Your task to perform on an android device: Do I have any events tomorrow? Image 0: 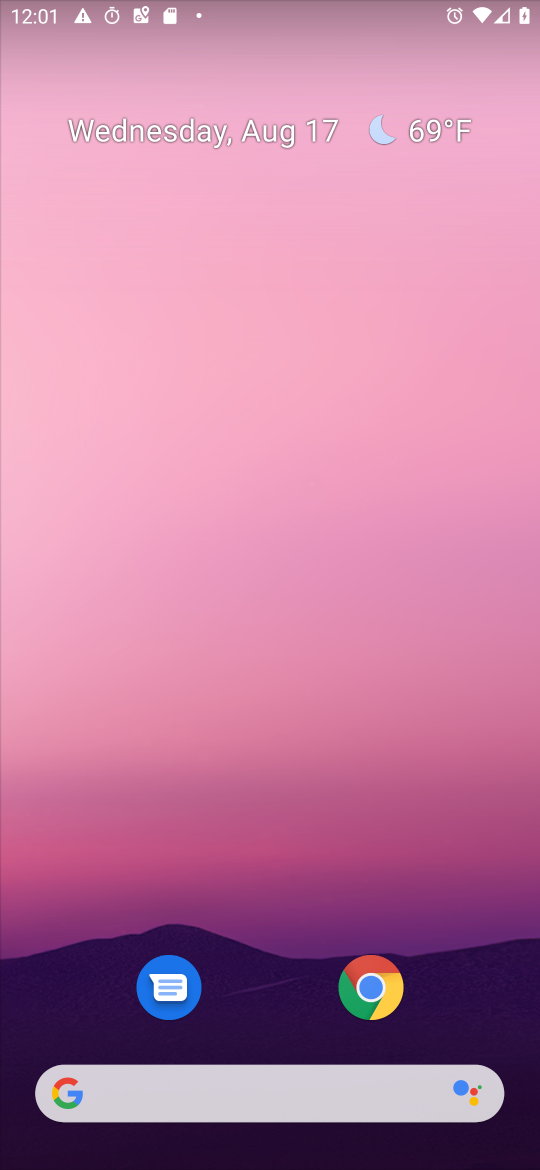
Step 0: click (143, 1081)
Your task to perform on an android device: Do I have any events tomorrow? Image 1: 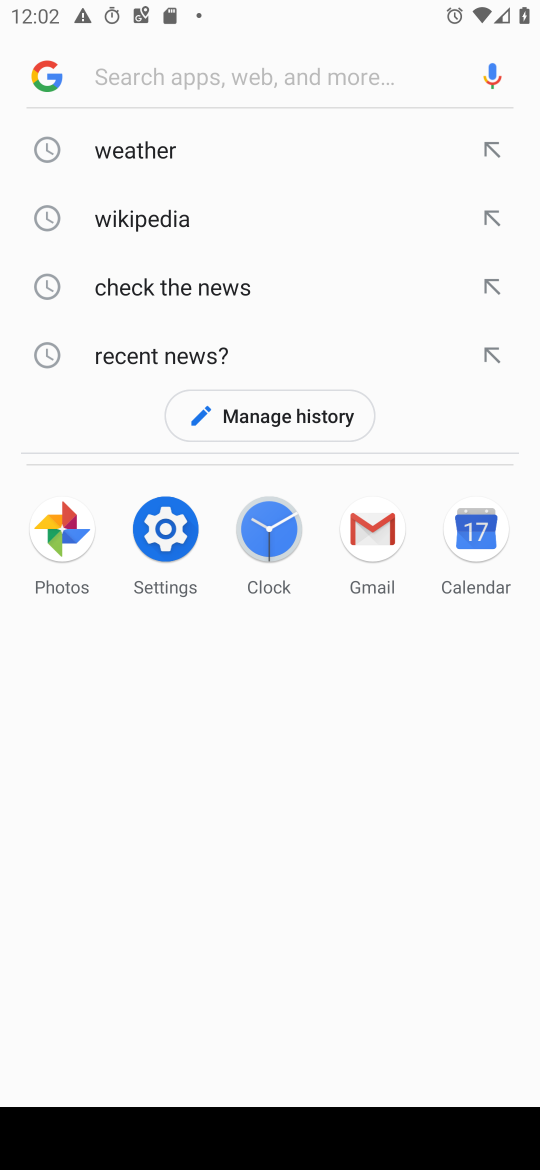
Step 1: type "Do I have any events tomorrow?"
Your task to perform on an android device: Do I have any events tomorrow? Image 2: 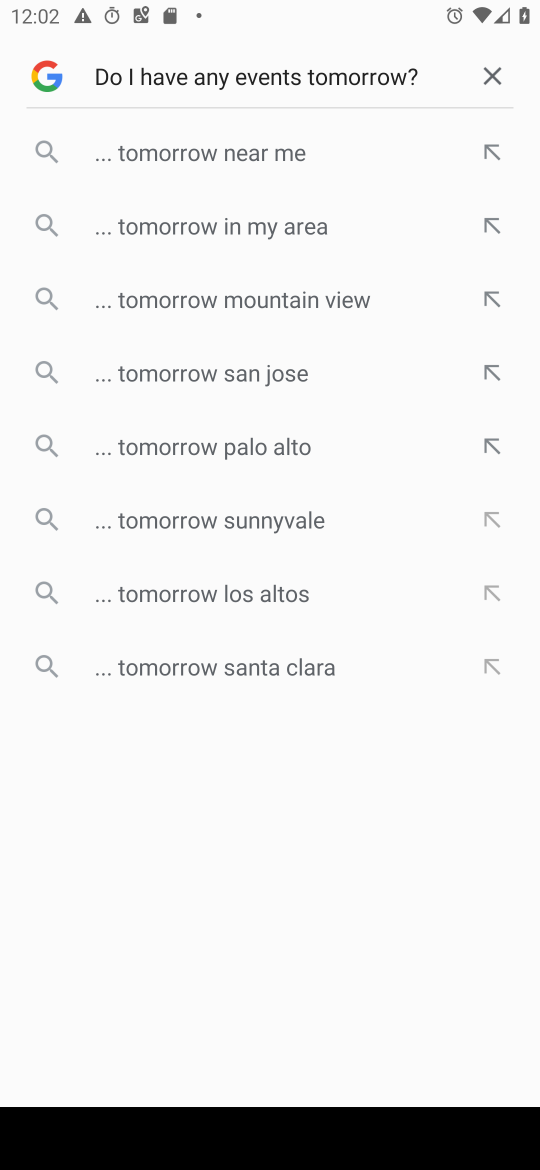
Step 2: type ""
Your task to perform on an android device: Do I have any events tomorrow? Image 3: 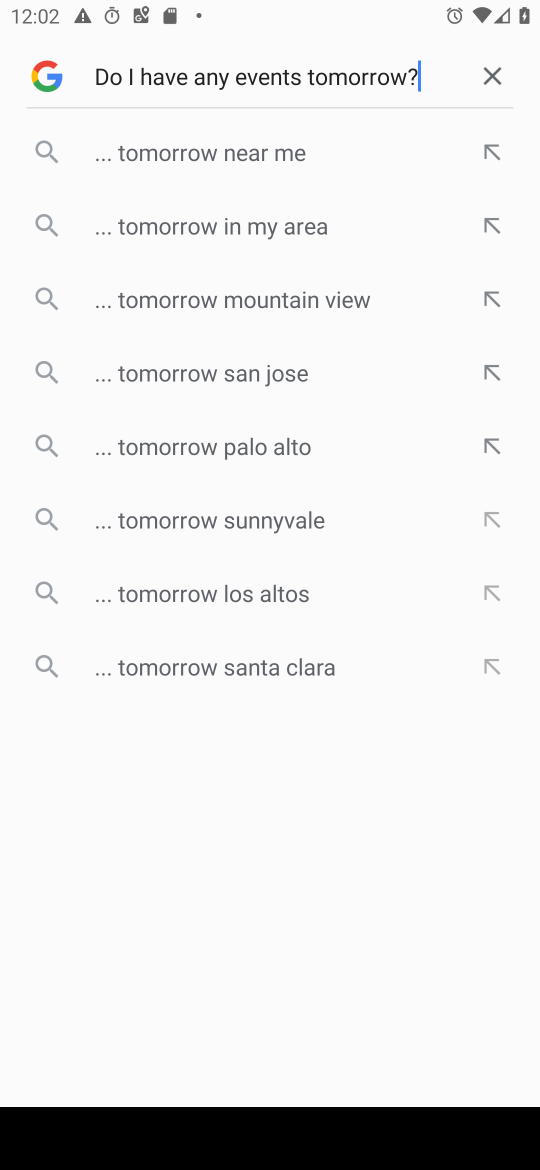
Step 3: type ""
Your task to perform on an android device: Do I have any events tomorrow? Image 4: 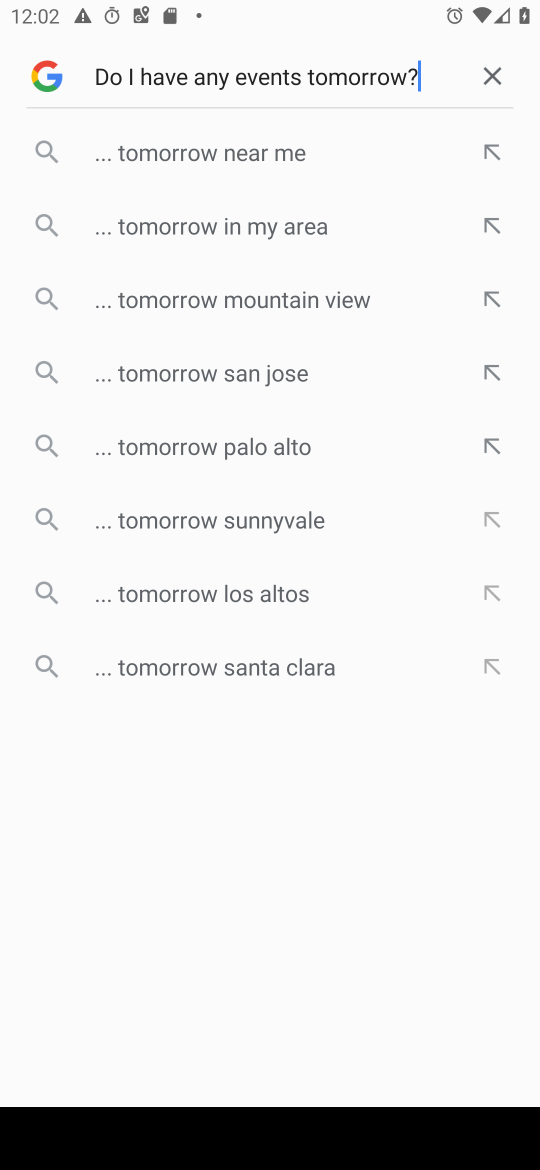
Step 4: task complete